Your task to perform on an android device: What's the weather today? Image 0: 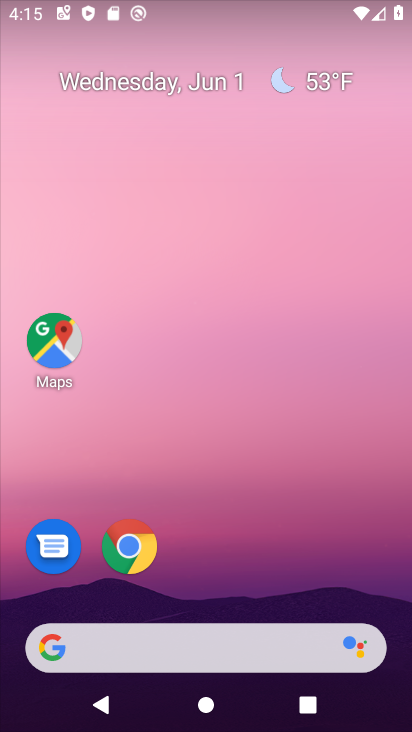
Step 0: click (204, 635)
Your task to perform on an android device: What's the weather today? Image 1: 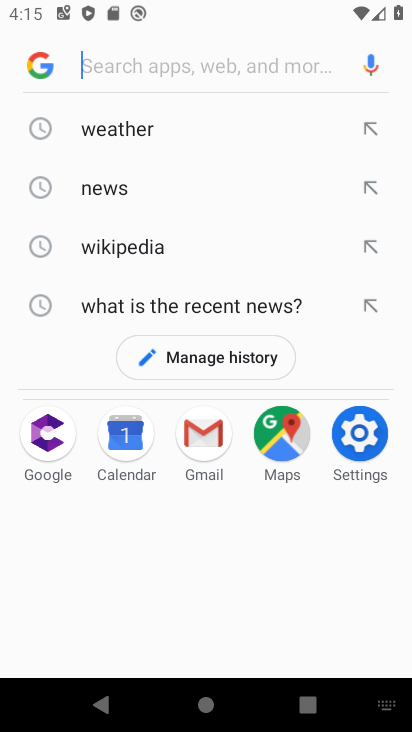
Step 1: click (122, 125)
Your task to perform on an android device: What's the weather today? Image 2: 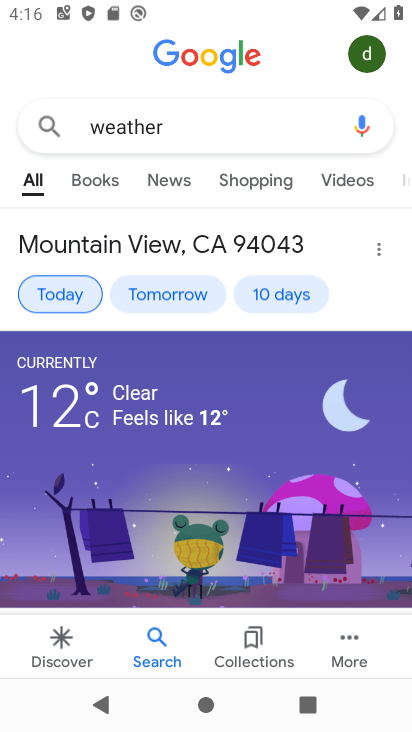
Step 2: click (235, 271)
Your task to perform on an android device: What's the weather today? Image 3: 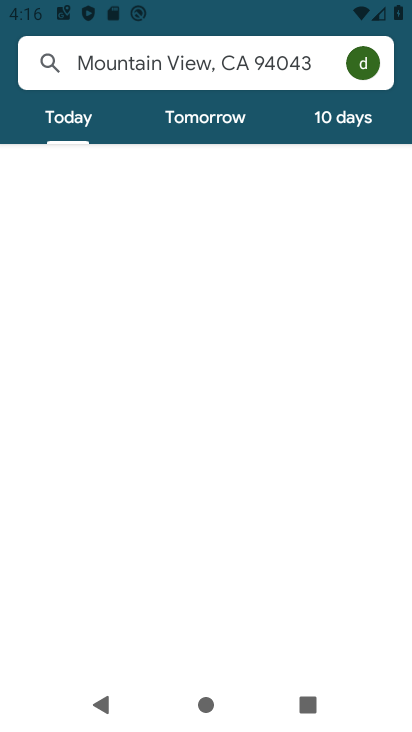
Step 3: task complete